Your task to perform on an android device: toggle translation in the chrome app Image 0: 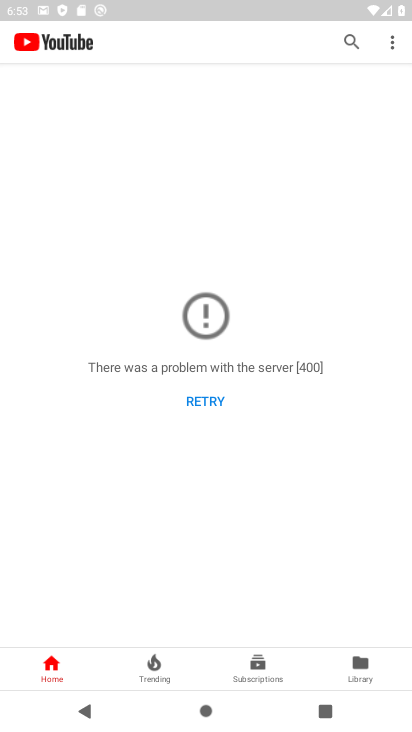
Step 0: press back button
Your task to perform on an android device: toggle translation in the chrome app Image 1: 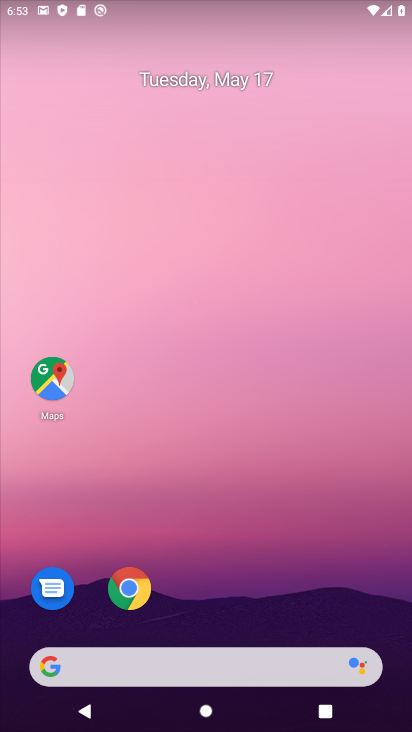
Step 1: click (128, 588)
Your task to perform on an android device: toggle translation in the chrome app Image 2: 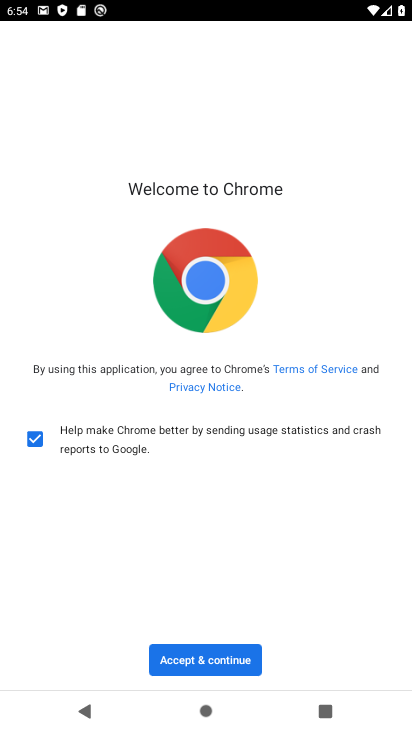
Step 2: click (204, 660)
Your task to perform on an android device: toggle translation in the chrome app Image 3: 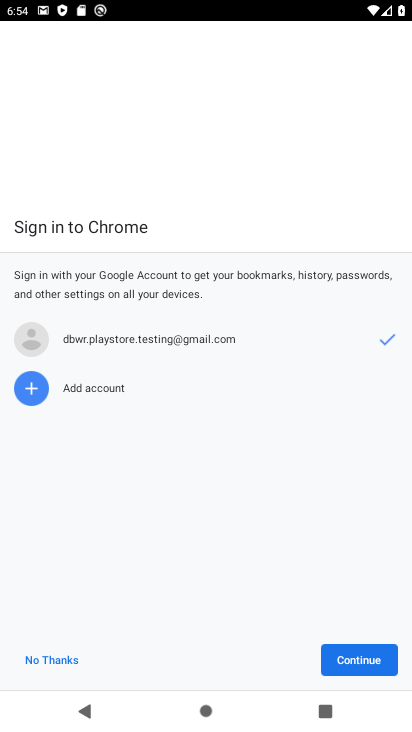
Step 3: click (358, 663)
Your task to perform on an android device: toggle translation in the chrome app Image 4: 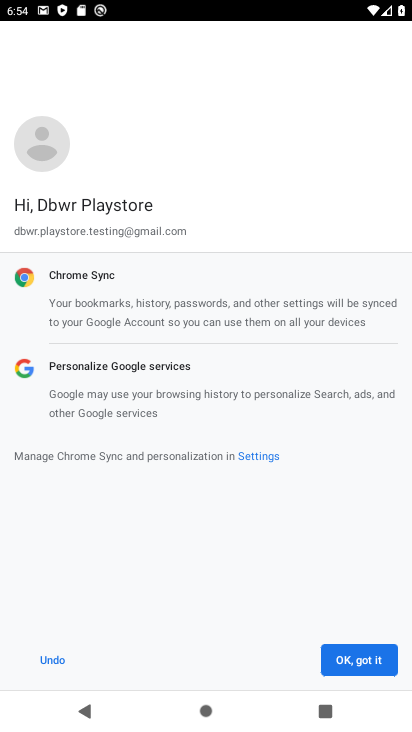
Step 4: click (358, 663)
Your task to perform on an android device: toggle translation in the chrome app Image 5: 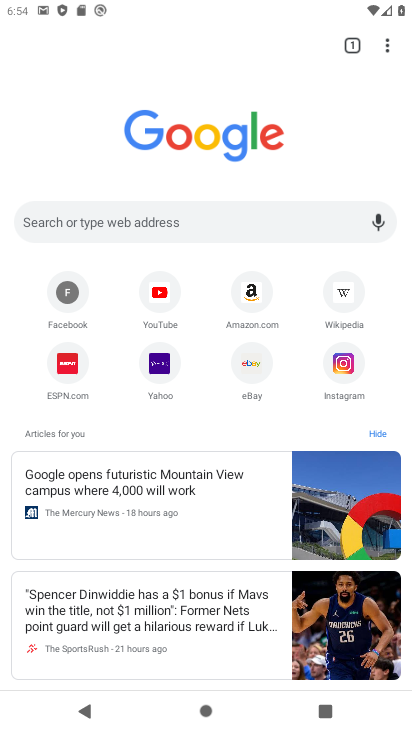
Step 5: click (387, 44)
Your task to perform on an android device: toggle translation in the chrome app Image 6: 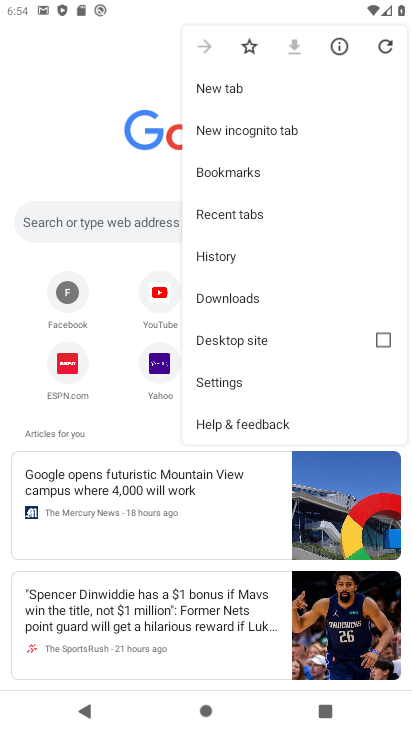
Step 6: click (227, 384)
Your task to perform on an android device: toggle translation in the chrome app Image 7: 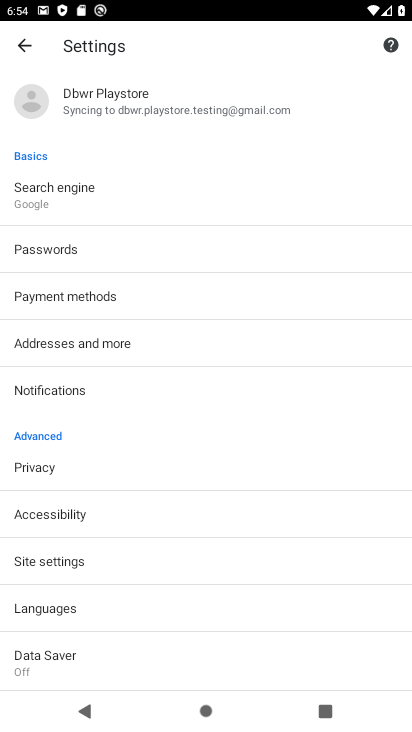
Step 7: click (66, 607)
Your task to perform on an android device: toggle translation in the chrome app Image 8: 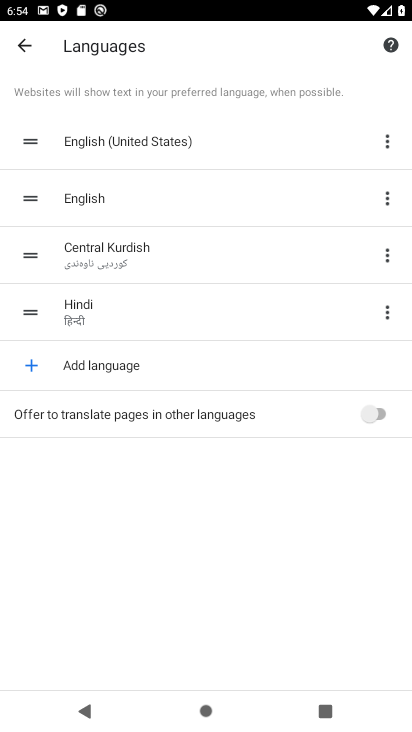
Step 8: click (371, 413)
Your task to perform on an android device: toggle translation in the chrome app Image 9: 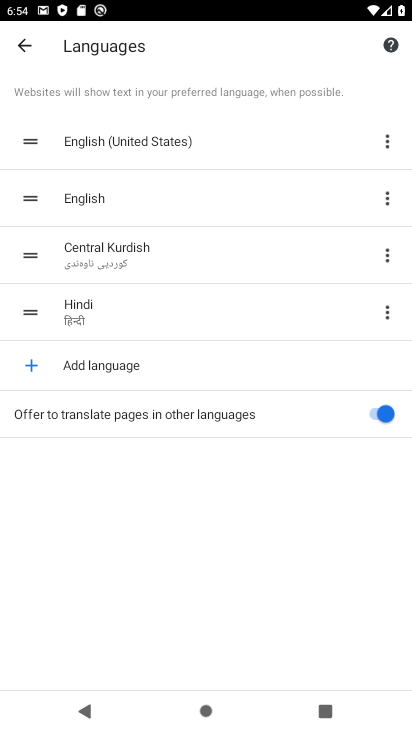
Step 9: task complete